Your task to perform on an android device: Search for Mexican restaurants on Maps Image 0: 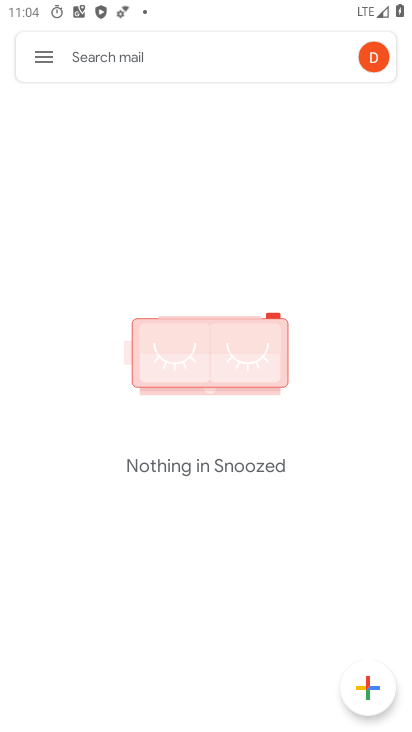
Step 0: press home button
Your task to perform on an android device: Search for Mexican restaurants on Maps Image 1: 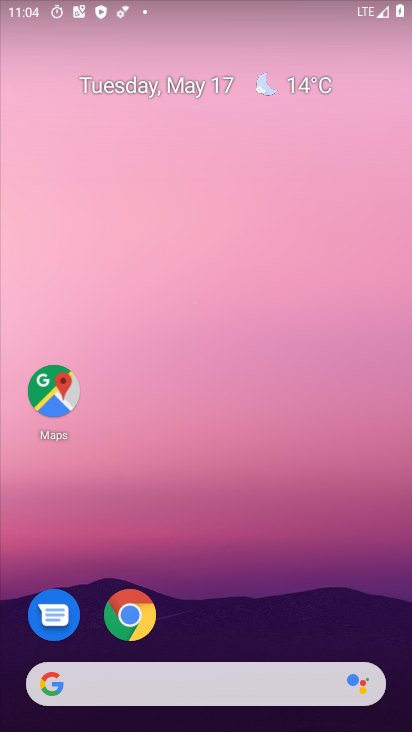
Step 1: click (52, 396)
Your task to perform on an android device: Search for Mexican restaurants on Maps Image 2: 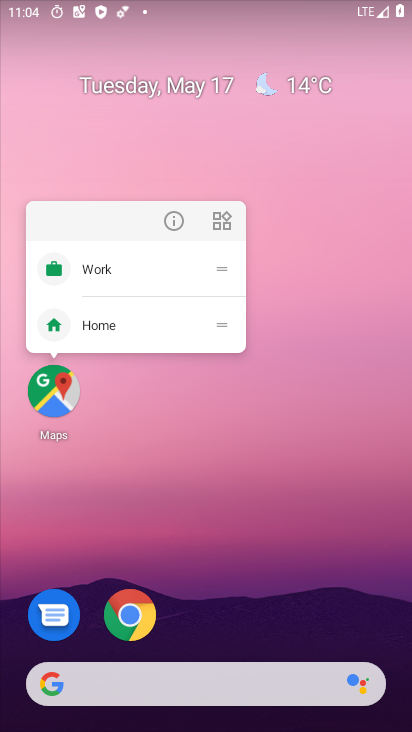
Step 2: click (53, 405)
Your task to perform on an android device: Search for Mexican restaurants on Maps Image 3: 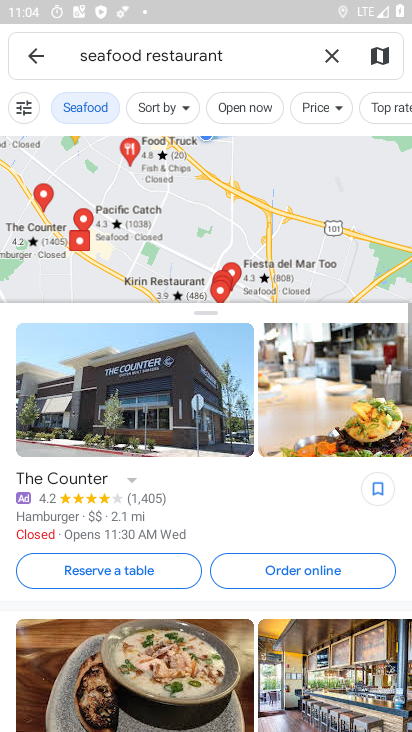
Step 3: click (329, 56)
Your task to perform on an android device: Search for Mexican restaurants on Maps Image 4: 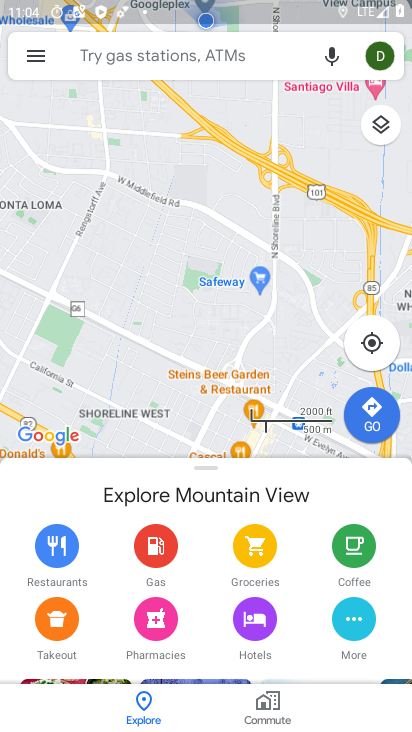
Step 4: click (154, 56)
Your task to perform on an android device: Search for Mexican restaurants on Maps Image 5: 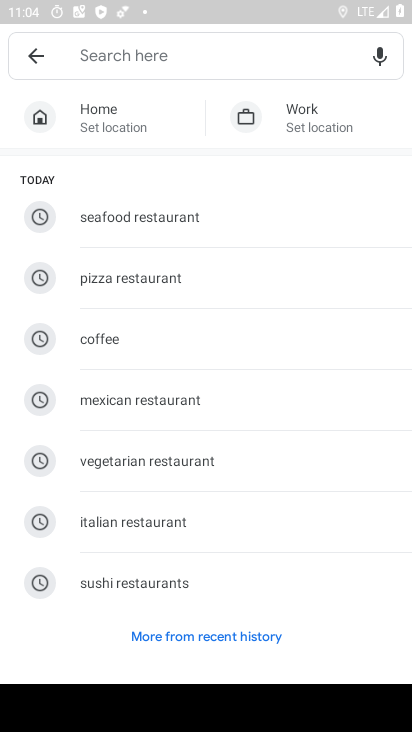
Step 5: click (143, 398)
Your task to perform on an android device: Search for Mexican restaurants on Maps Image 6: 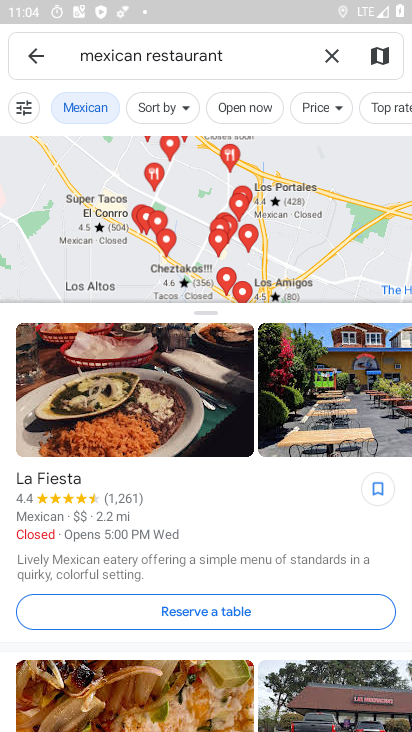
Step 6: task complete